Your task to perform on an android device: Go to Amazon Image 0: 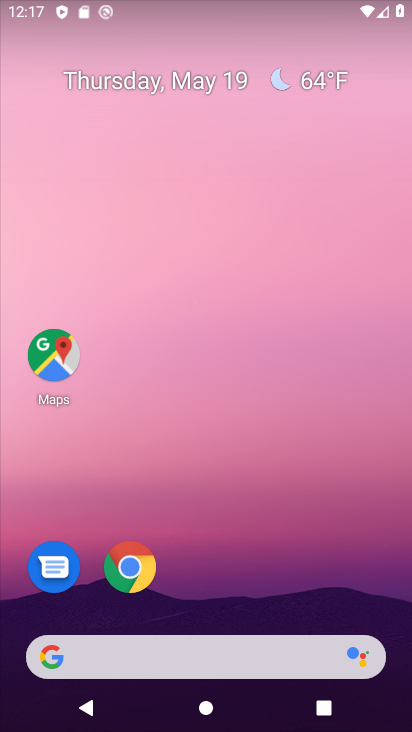
Step 0: click (142, 579)
Your task to perform on an android device: Go to Amazon Image 1: 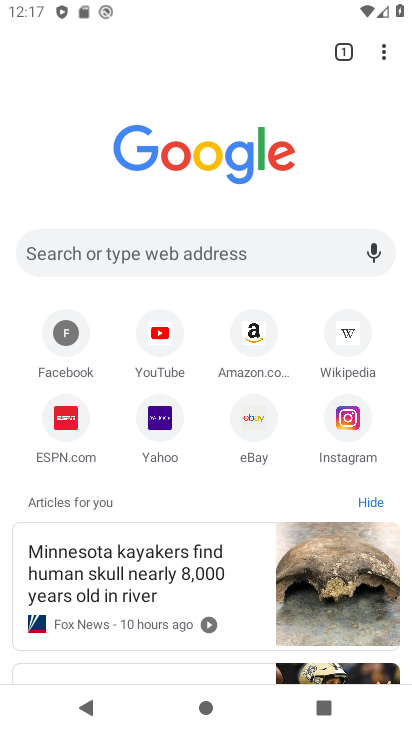
Step 1: click (248, 339)
Your task to perform on an android device: Go to Amazon Image 2: 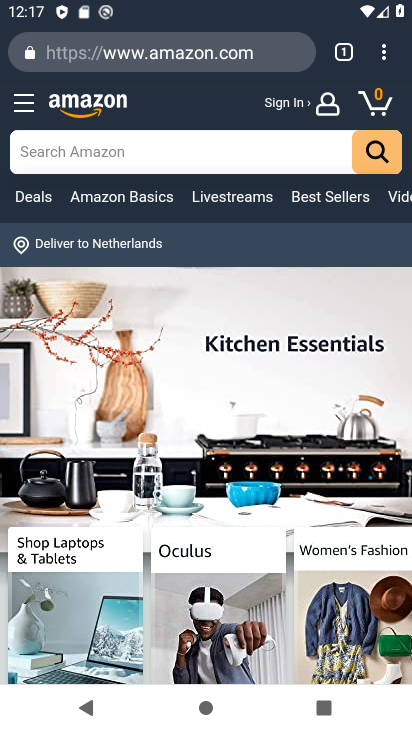
Step 2: task complete